Your task to perform on an android device: toggle pop-ups in chrome Image 0: 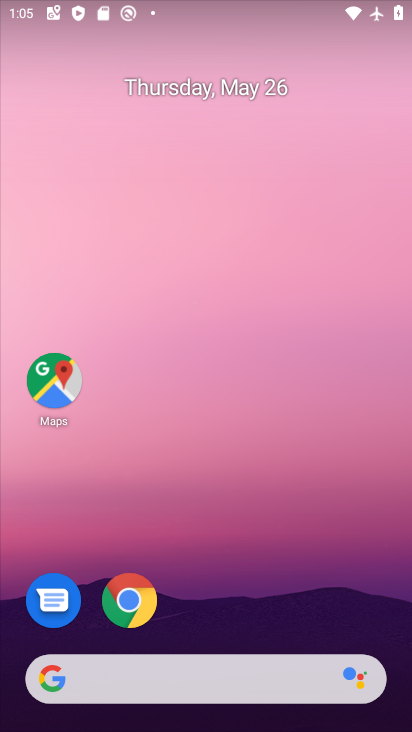
Step 0: drag from (282, 562) to (311, 18)
Your task to perform on an android device: toggle pop-ups in chrome Image 1: 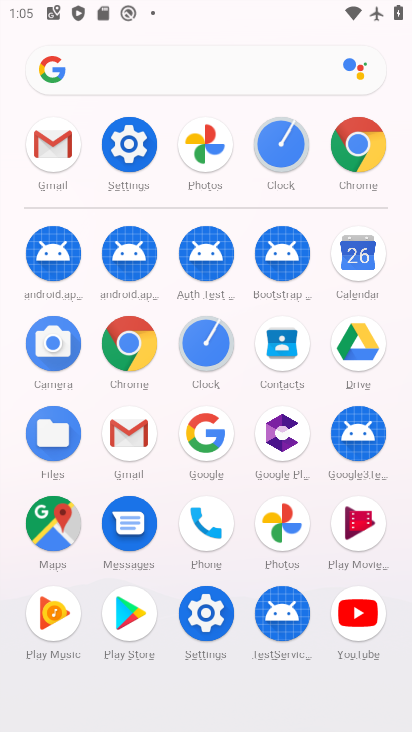
Step 1: click (131, 342)
Your task to perform on an android device: toggle pop-ups in chrome Image 2: 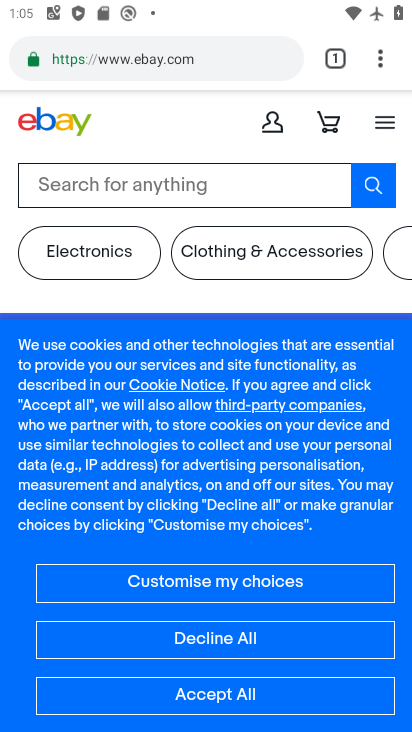
Step 2: drag from (385, 57) to (208, 630)
Your task to perform on an android device: toggle pop-ups in chrome Image 3: 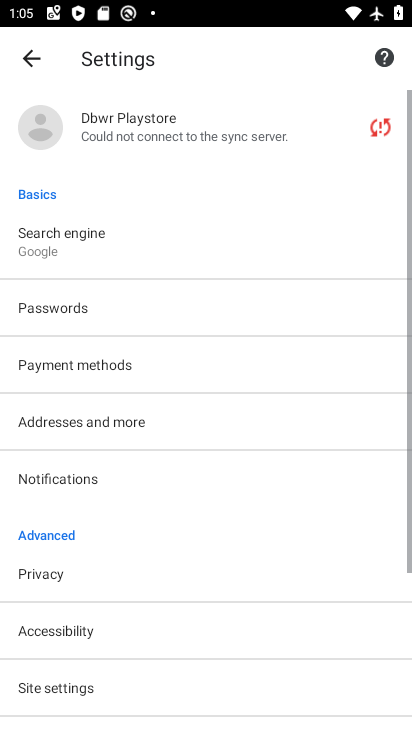
Step 3: drag from (198, 607) to (232, 114)
Your task to perform on an android device: toggle pop-ups in chrome Image 4: 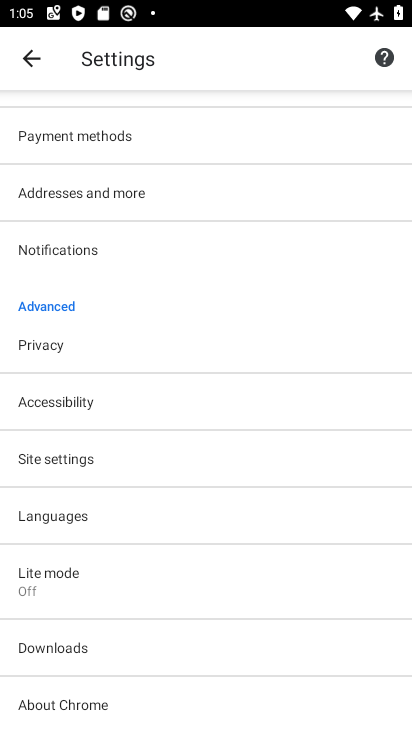
Step 4: click (91, 467)
Your task to perform on an android device: toggle pop-ups in chrome Image 5: 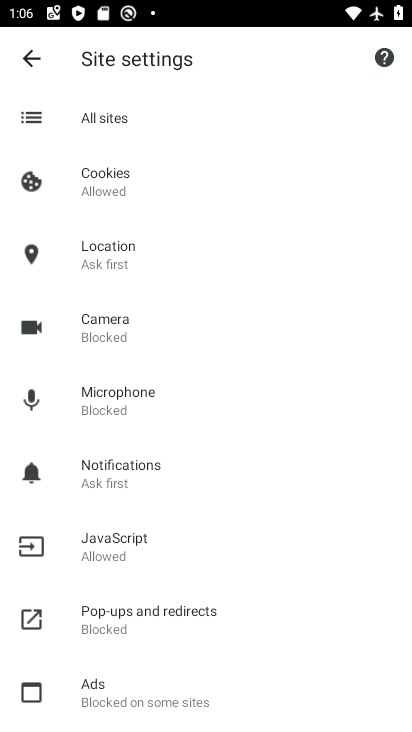
Step 5: click (222, 613)
Your task to perform on an android device: toggle pop-ups in chrome Image 6: 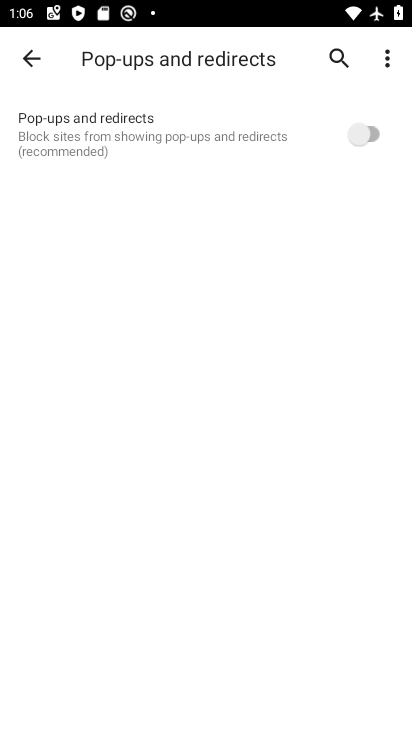
Step 6: click (338, 137)
Your task to perform on an android device: toggle pop-ups in chrome Image 7: 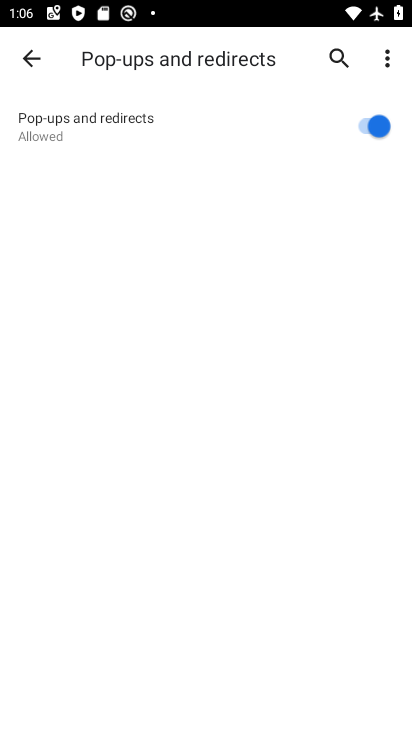
Step 7: task complete